Your task to perform on an android device: Go to Yahoo.com Image 0: 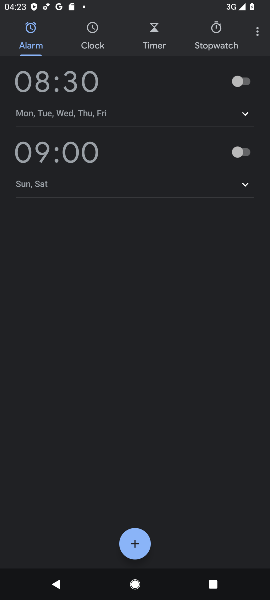
Step 0: press home button
Your task to perform on an android device: Go to Yahoo.com Image 1: 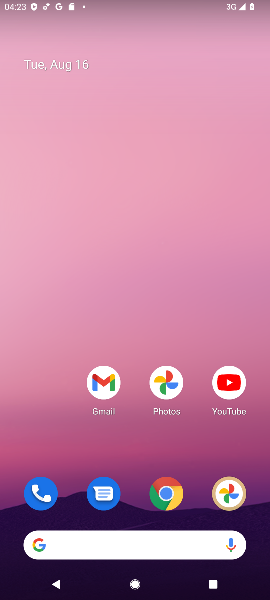
Step 1: drag from (73, 498) to (49, 76)
Your task to perform on an android device: Go to Yahoo.com Image 2: 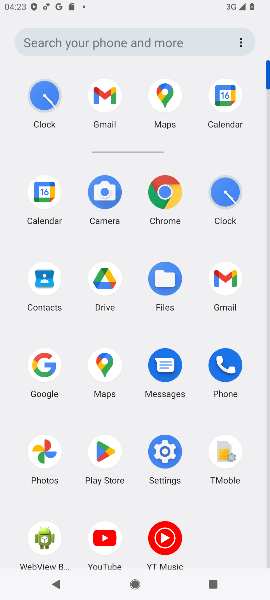
Step 2: click (165, 200)
Your task to perform on an android device: Go to Yahoo.com Image 3: 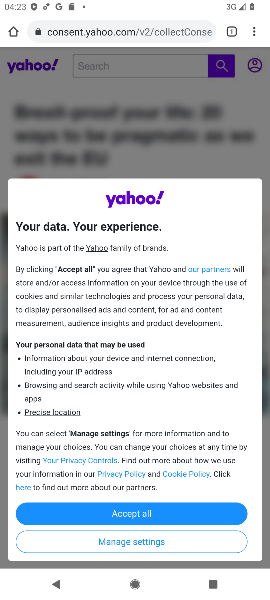
Step 3: task complete